Your task to perform on an android device: Go to location settings Image 0: 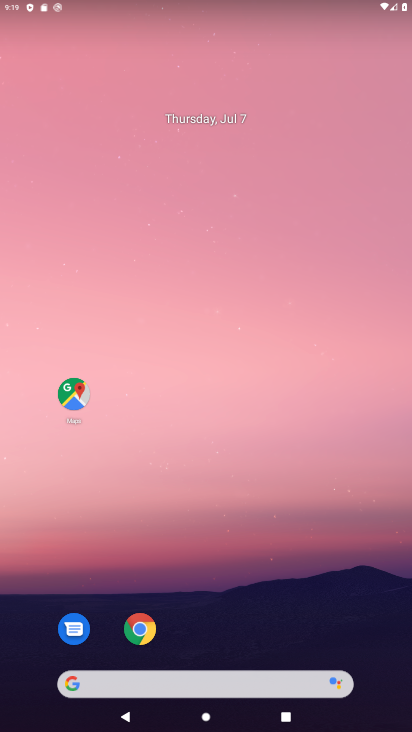
Step 0: drag from (240, 657) to (300, 207)
Your task to perform on an android device: Go to location settings Image 1: 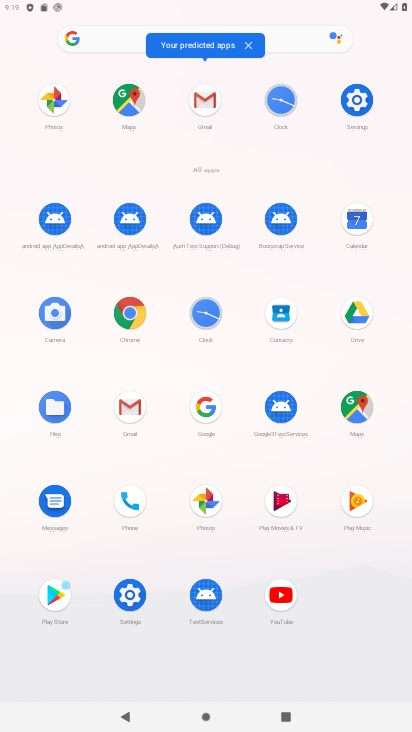
Step 1: click (122, 598)
Your task to perform on an android device: Go to location settings Image 2: 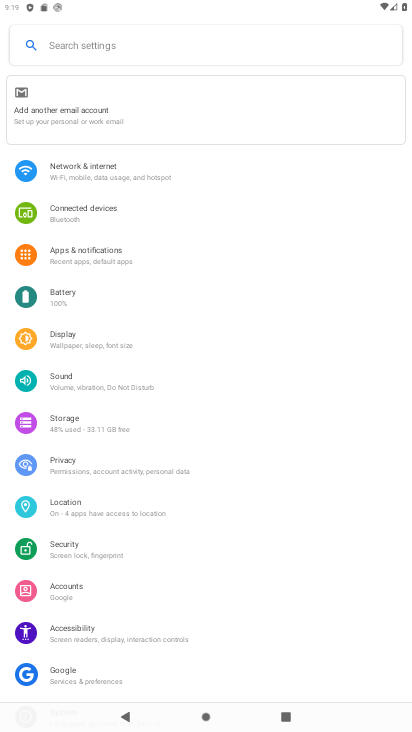
Step 2: click (83, 513)
Your task to perform on an android device: Go to location settings Image 3: 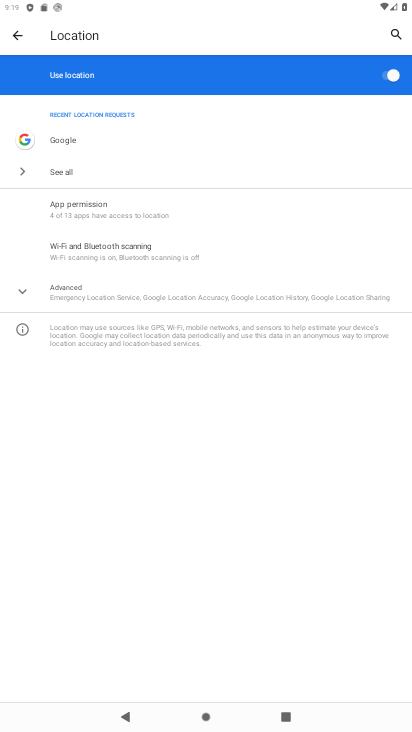
Step 3: task complete